Your task to perform on an android device: Go to Reddit.com Image 0: 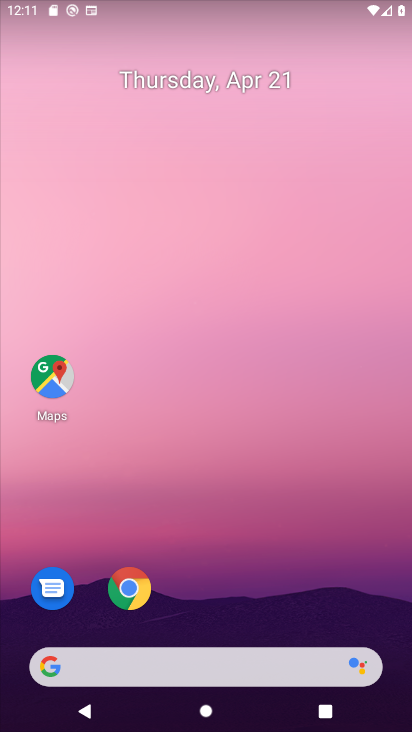
Step 0: click (127, 582)
Your task to perform on an android device: Go to Reddit.com Image 1: 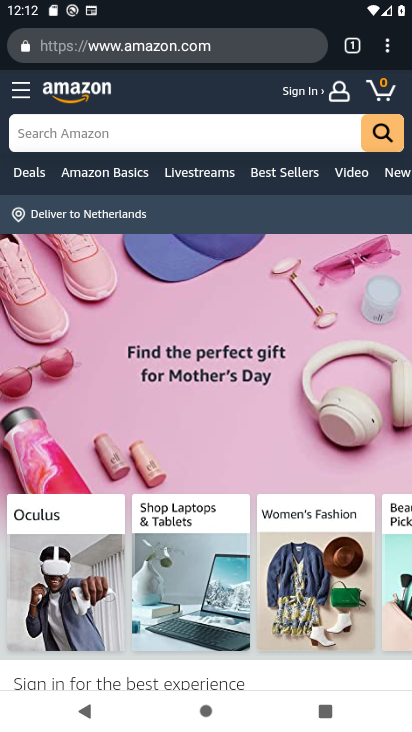
Step 1: click (350, 42)
Your task to perform on an android device: Go to Reddit.com Image 2: 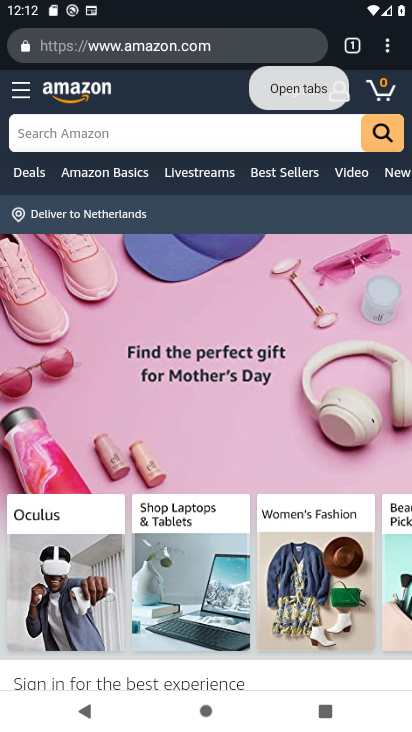
Step 2: click (350, 48)
Your task to perform on an android device: Go to Reddit.com Image 3: 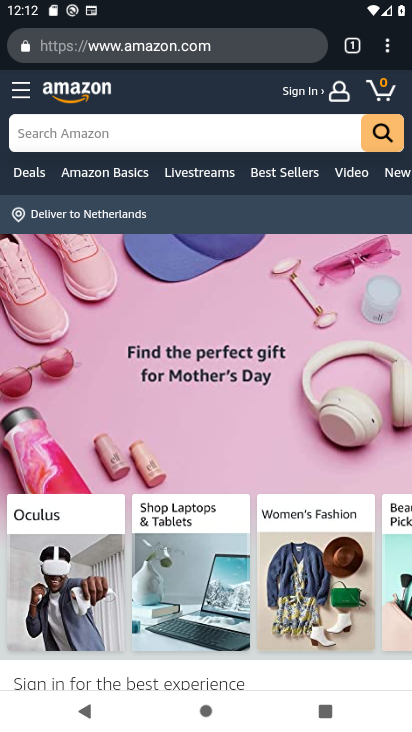
Step 3: click (347, 42)
Your task to perform on an android device: Go to Reddit.com Image 4: 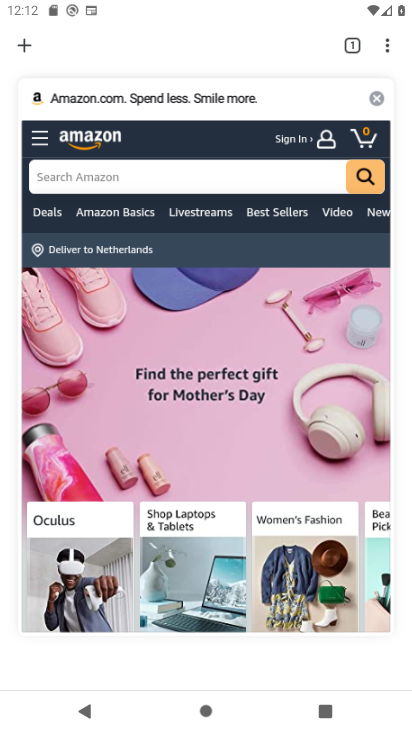
Step 4: click (374, 99)
Your task to perform on an android device: Go to Reddit.com Image 5: 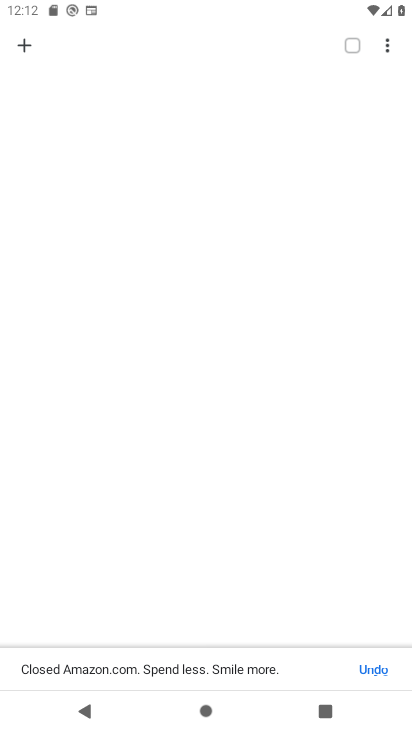
Step 5: click (26, 47)
Your task to perform on an android device: Go to Reddit.com Image 6: 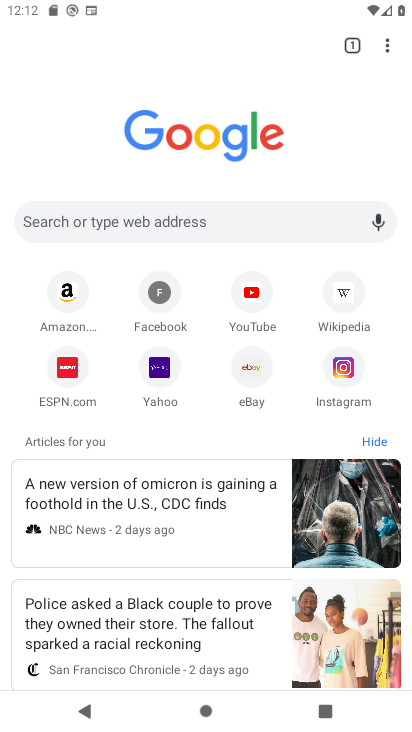
Step 6: click (131, 207)
Your task to perform on an android device: Go to Reddit.com Image 7: 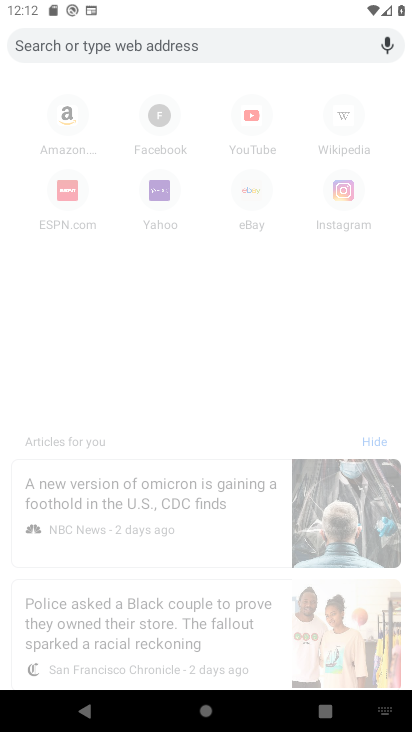
Step 7: type "reddit"
Your task to perform on an android device: Go to Reddit.com Image 8: 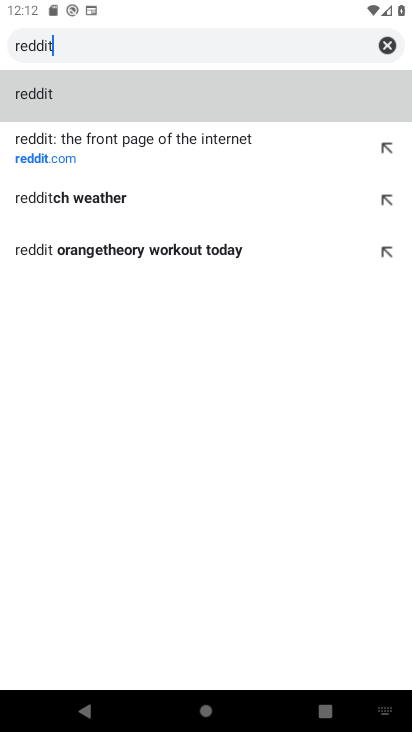
Step 8: click (117, 154)
Your task to perform on an android device: Go to Reddit.com Image 9: 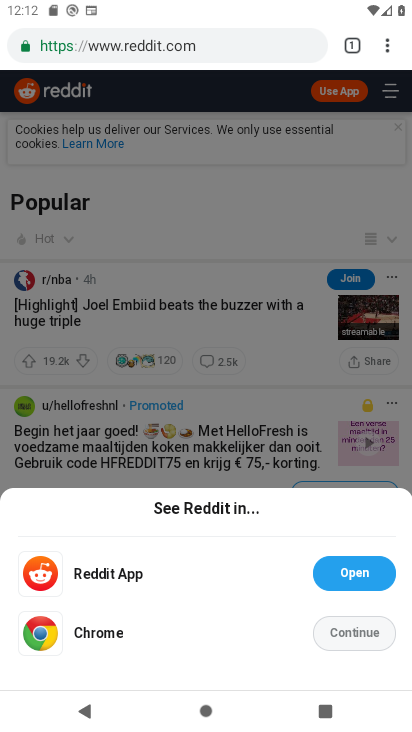
Step 9: click (355, 628)
Your task to perform on an android device: Go to Reddit.com Image 10: 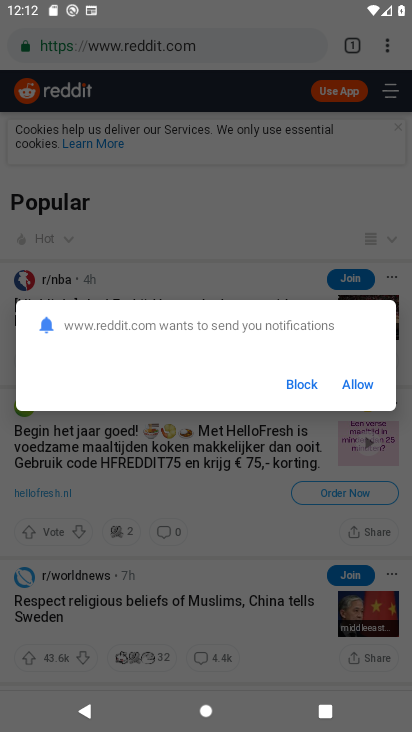
Step 10: click (298, 385)
Your task to perform on an android device: Go to Reddit.com Image 11: 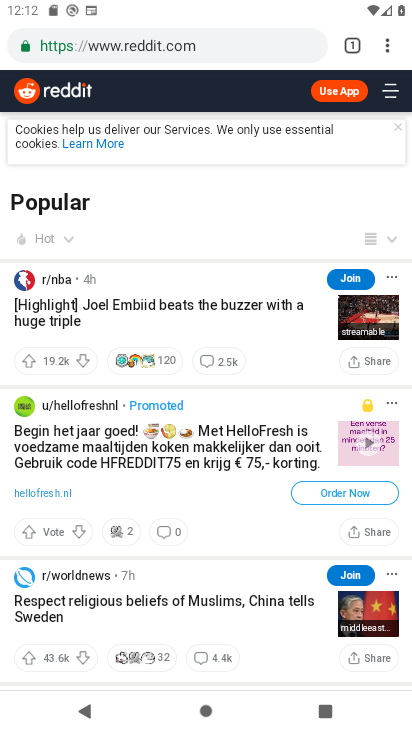
Step 11: task complete